Your task to perform on an android device: turn on sleep mode Image 0: 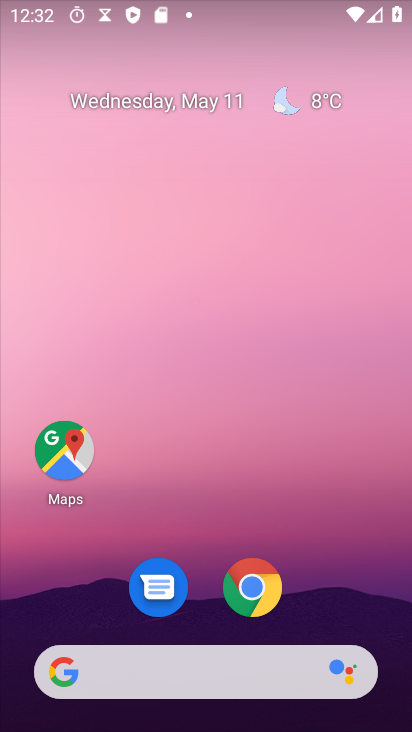
Step 0: drag from (313, 495) to (41, 14)
Your task to perform on an android device: turn on sleep mode Image 1: 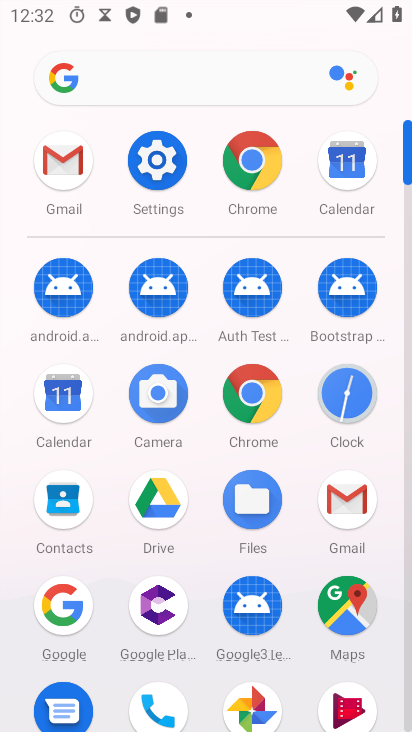
Step 1: click (159, 161)
Your task to perform on an android device: turn on sleep mode Image 2: 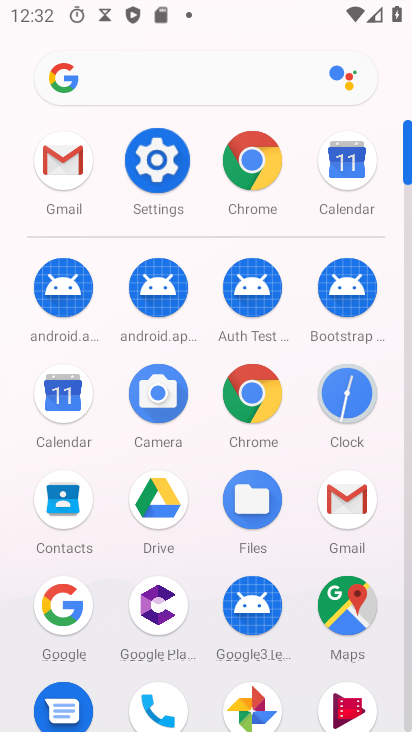
Step 2: click (162, 159)
Your task to perform on an android device: turn on sleep mode Image 3: 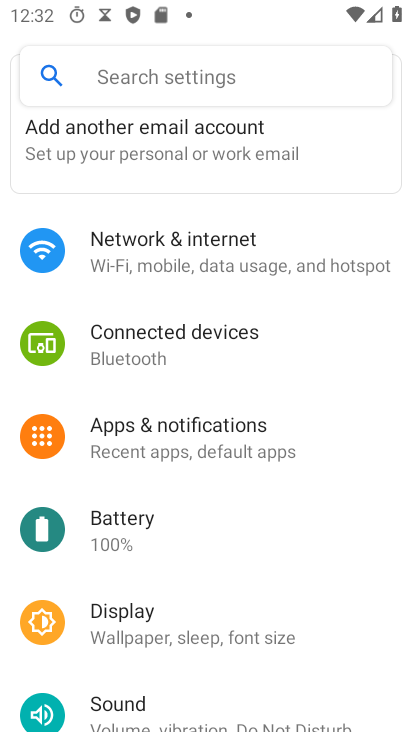
Step 3: drag from (217, 544) to (211, 228)
Your task to perform on an android device: turn on sleep mode Image 4: 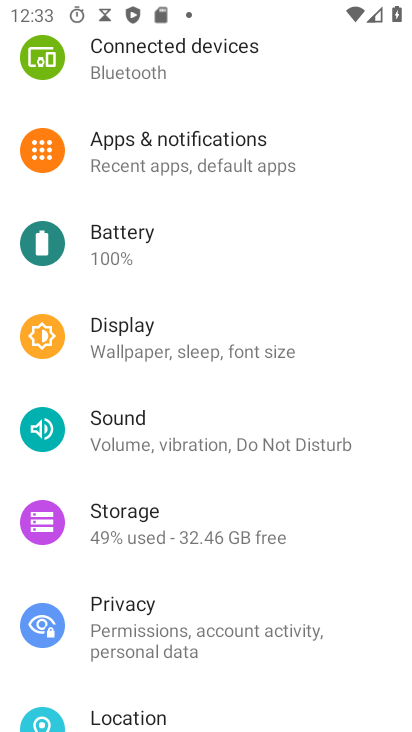
Step 4: click (135, 343)
Your task to perform on an android device: turn on sleep mode Image 5: 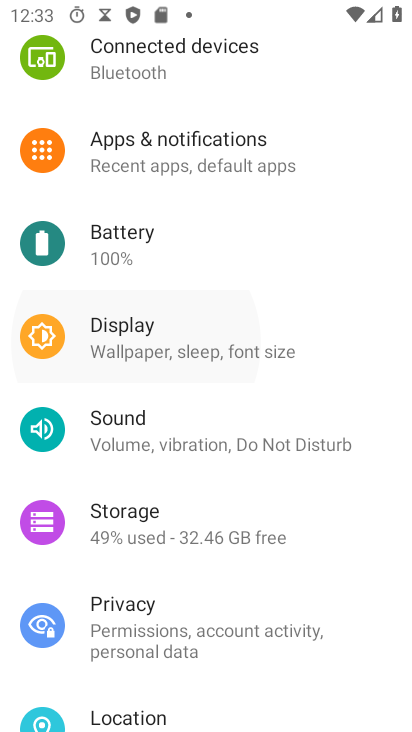
Step 5: click (135, 344)
Your task to perform on an android device: turn on sleep mode Image 6: 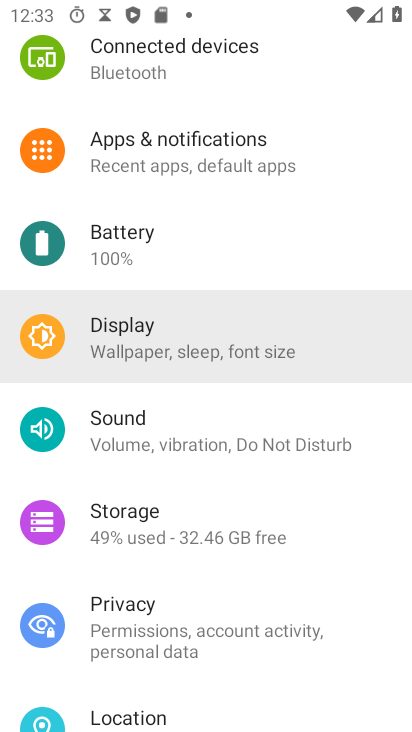
Step 6: click (135, 344)
Your task to perform on an android device: turn on sleep mode Image 7: 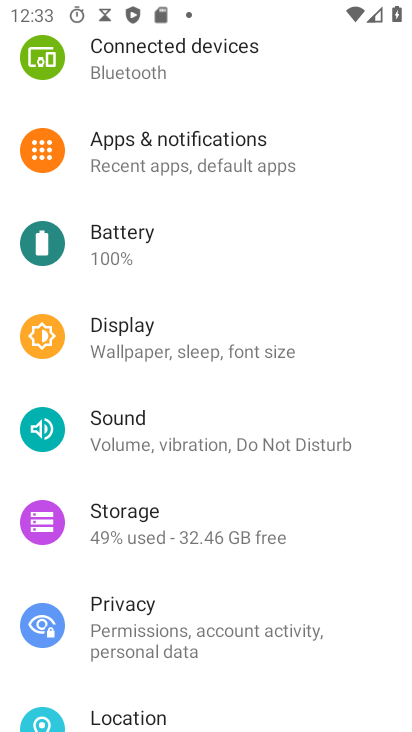
Step 7: click (135, 344)
Your task to perform on an android device: turn on sleep mode Image 8: 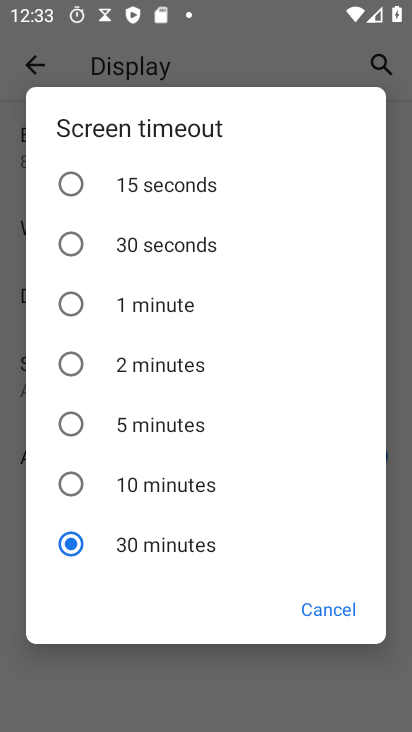
Step 8: task complete